Your task to perform on an android device: open a bookmark in the chrome app Image 0: 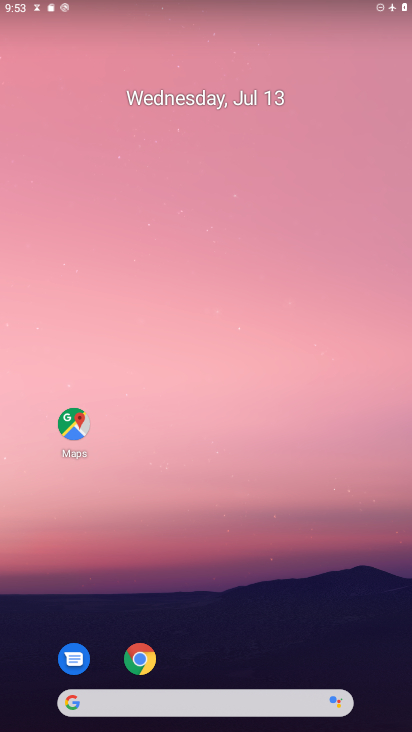
Step 0: click (182, 652)
Your task to perform on an android device: open a bookmark in the chrome app Image 1: 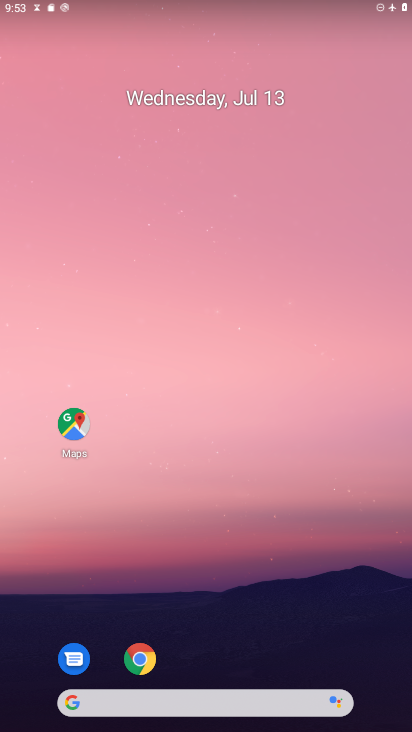
Step 1: click (148, 659)
Your task to perform on an android device: open a bookmark in the chrome app Image 2: 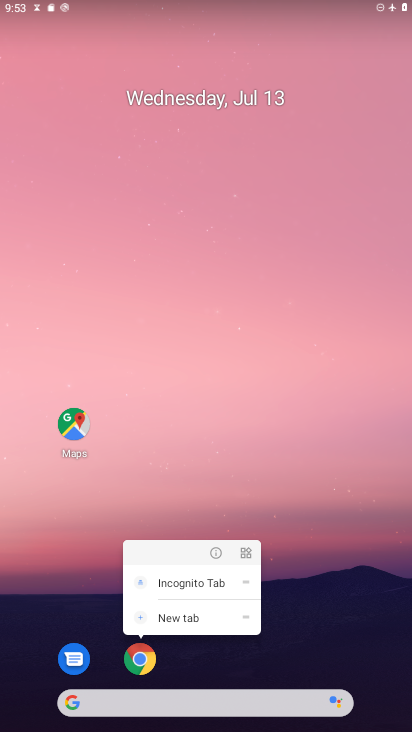
Step 2: click (156, 667)
Your task to perform on an android device: open a bookmark in the chrome app Image 3: 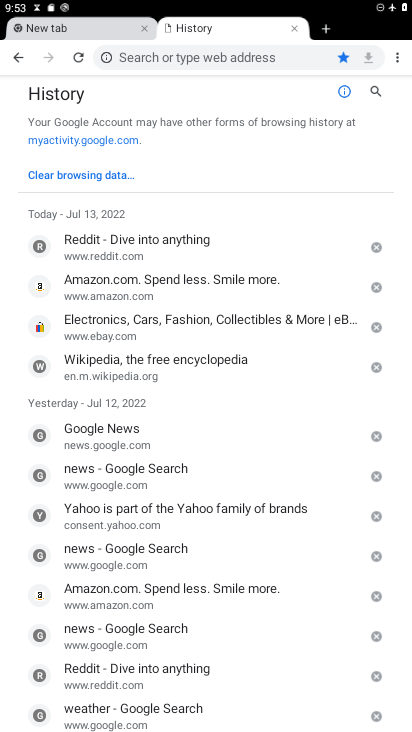
Step 3: drag from (395, 61) to (315, 112)
Your task to perform on an android device: open a bookmark in the chrome app Image 4: 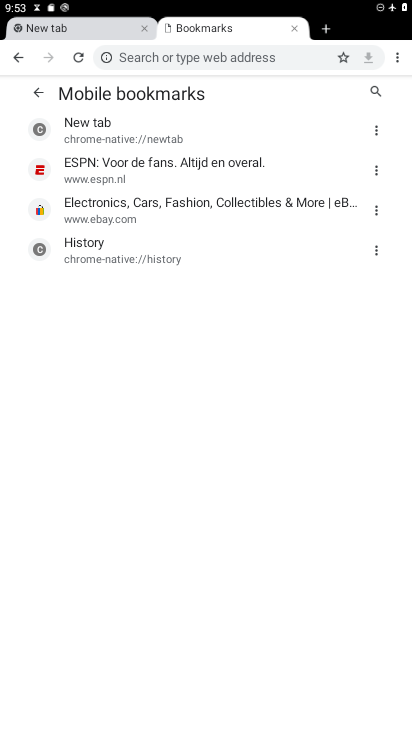
Step 4: click (209, 157)
Your task to perform on an android device: open a bookmark in the chrome app Image 5: 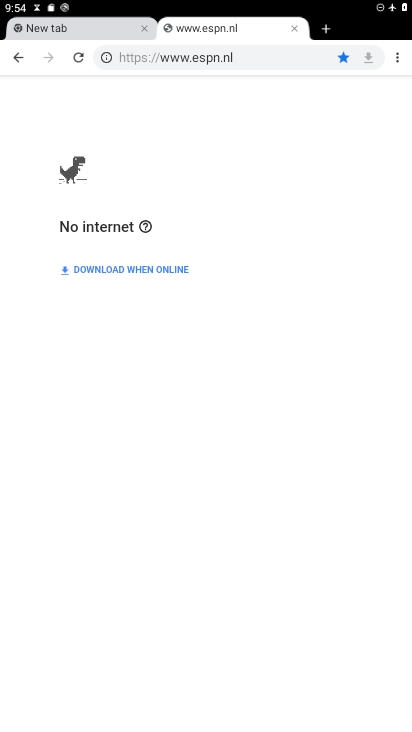
Step 5: task complete